Your task to perform on an android device: Open CNN.com Image 0: 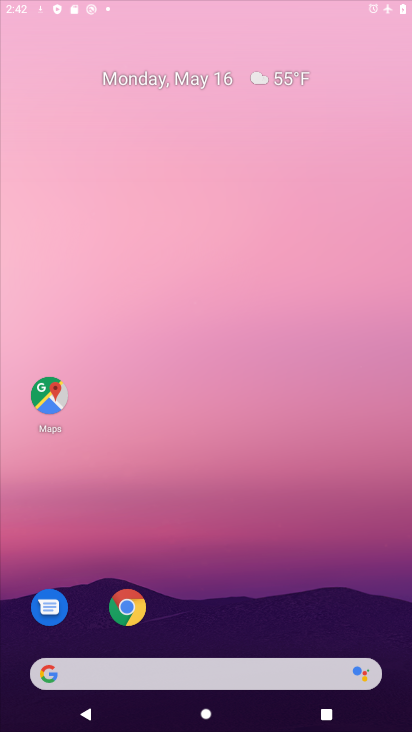
Step 0: click (52, 405)
Your task to perform on an android device: Open CNN.com Image 1: 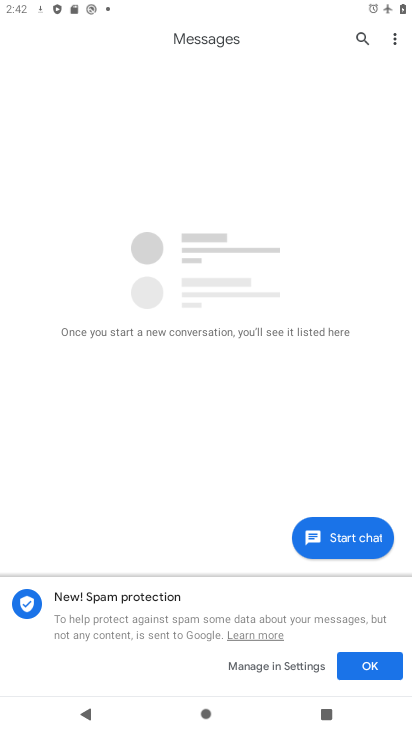
Step 1: click (374, 655)
Your task to perform on an android device: Open CNN.com Image 2: 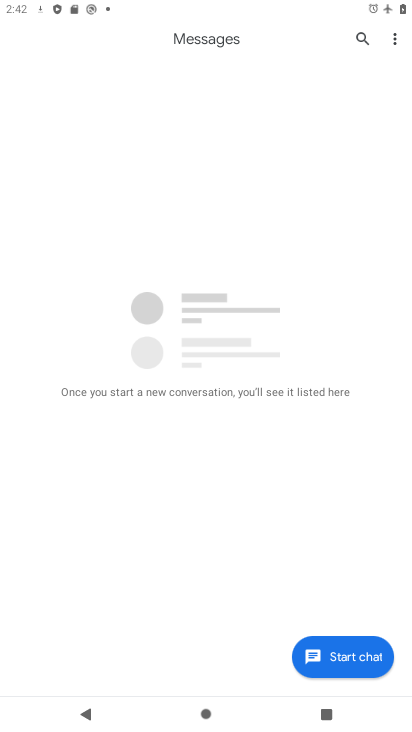
Step 2: press home button
Your task to perform on an android device: Open CNN.com Image 3: 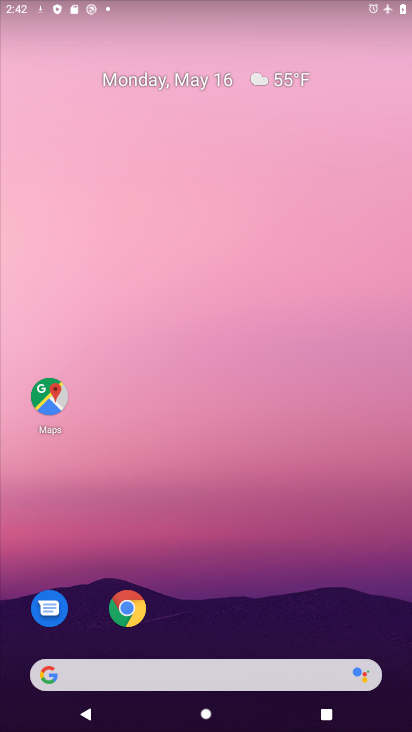
Step 3: click (135, 613)
Your task to perform on an android device: Open CNN.com Image 4: 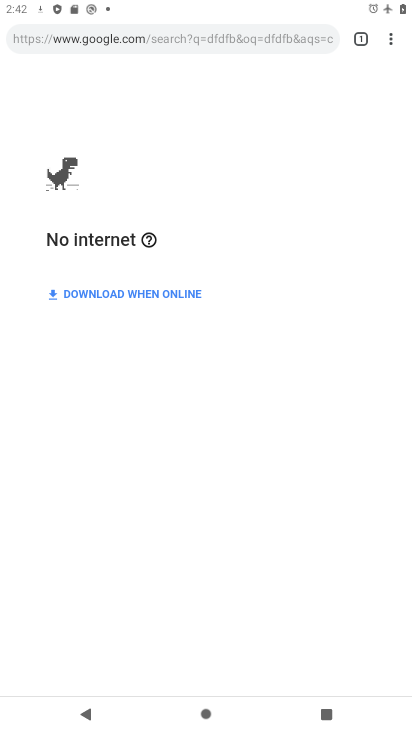
Step 4: click (361, 31)
Your task to perform on an android device: Open CNN.com Image 5: 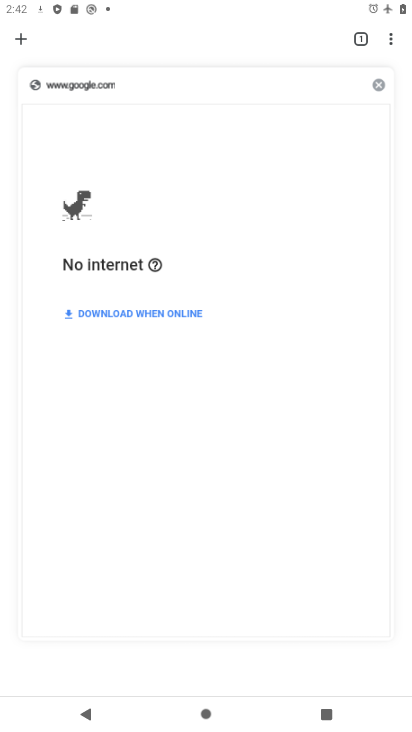
Step 5: click (22, 40)
Your task to perform on an android device: Open CNN.com Image 6: 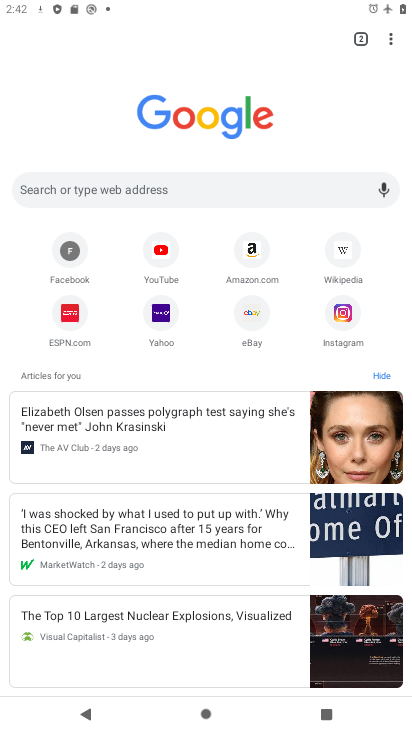
Step 6: click (119, 195)
Your task to perform on an android device: Open CNN.com Image 7: 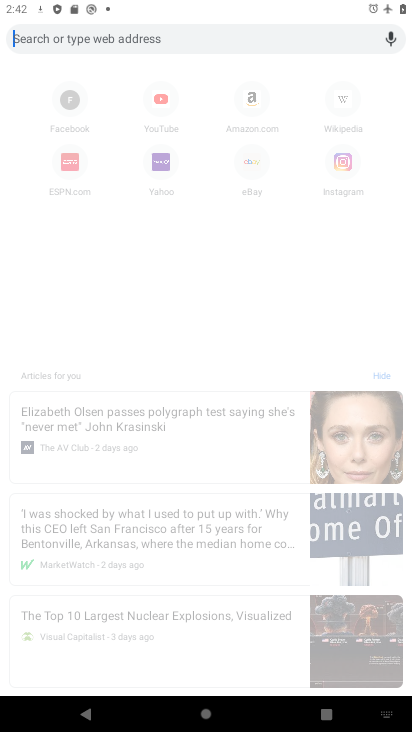
Step 7: type "CNN.com"
Your task to perform on an android device: Open CNN.com Image 8: 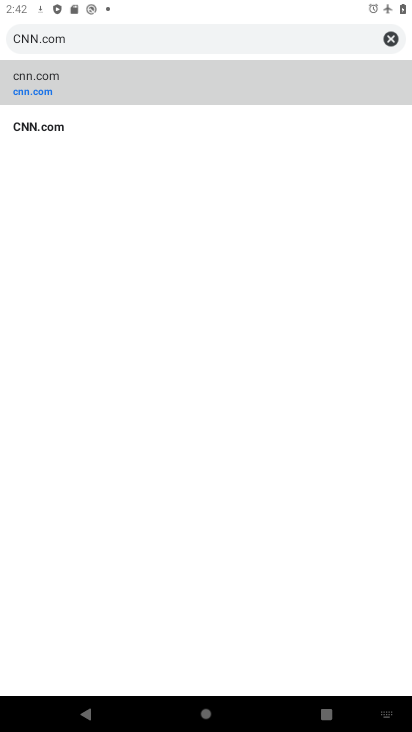
Step 8: click (52, 84)
Your task to perform on an android device: Open CNN.com Image 9: 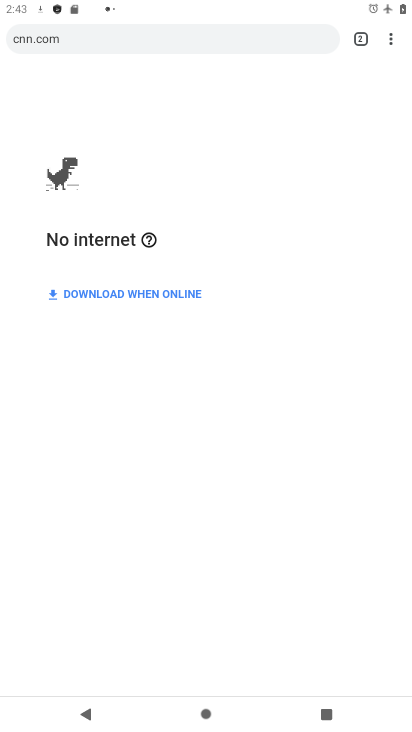
Step 9: task complete